Your task to perform on an android device: change the clock display to show seconds Image 0: 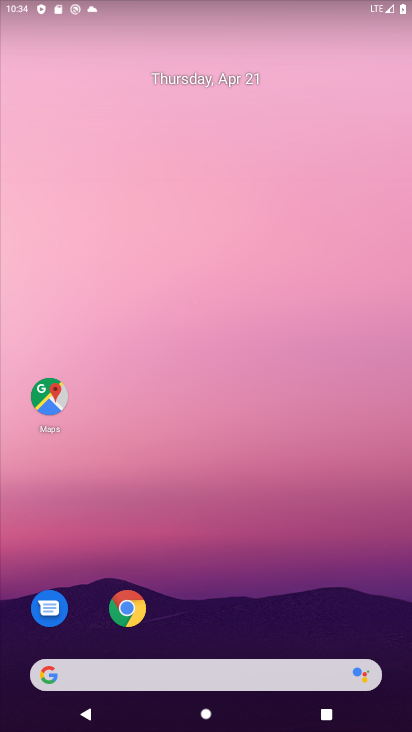
Step 0: drag from (212, 628) to (180, 196)
Your task to perform on an android device: change the clock display to show seconds Image 1: 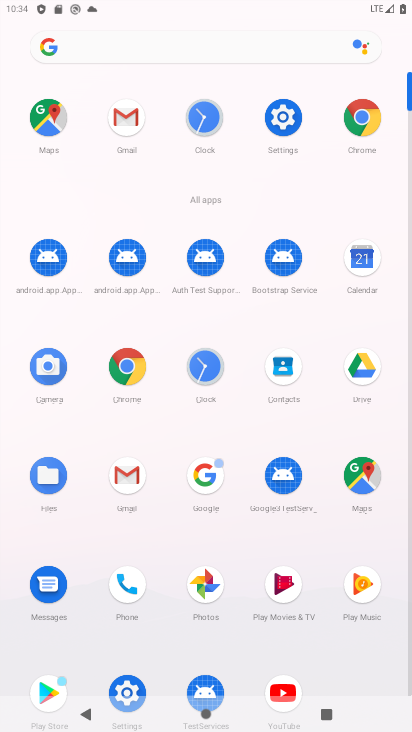
Step 1: click (200, 362)
Your task to perform on an android device: change the clock display to show seconds Image 2: 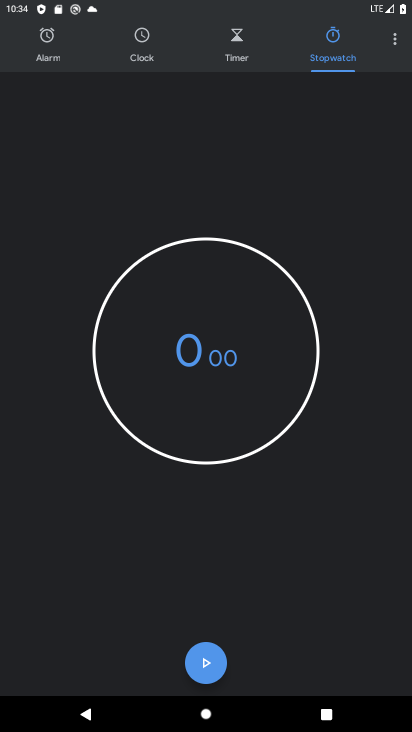
Step 2: click (395, 38)
Your task to perform on an android device: change the clock display to show seconds Image 3: 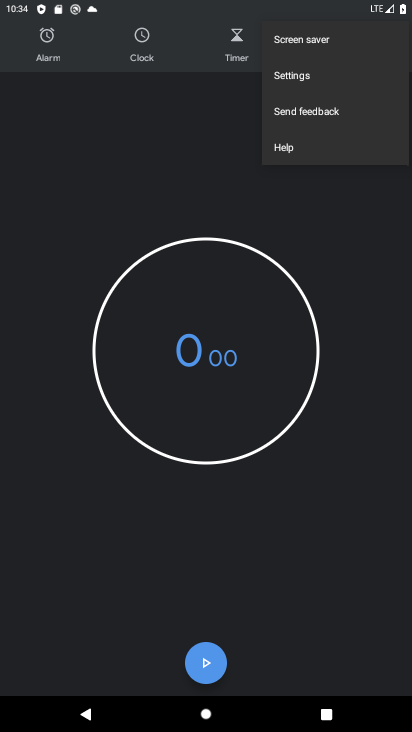
Step 3: click (283, 76)
Your task to perform on an android device: change the clock display to show seconds Image 4: 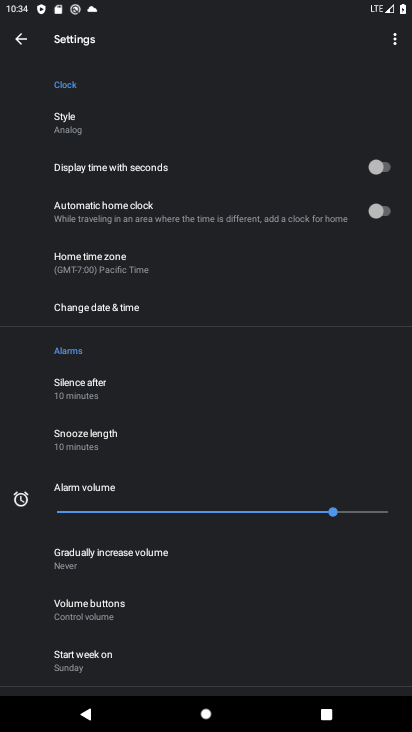
Step 4: click (383, 169)
Your task to perform on an android device: change the clock display to show seconds Image 5: 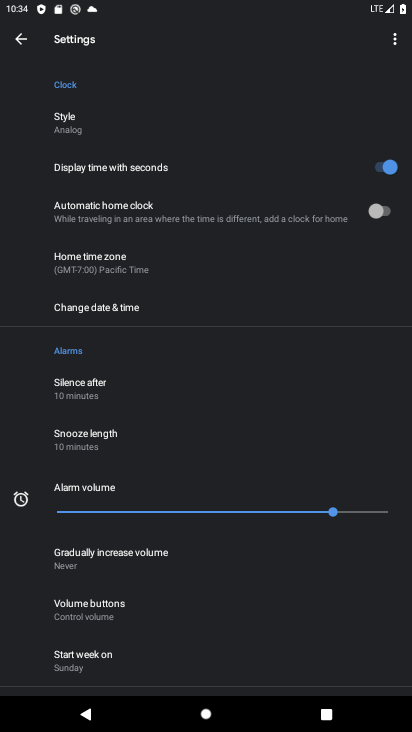
Step 5: task complete